Your task to perform on an android device: add a contact in the contacts app Image 0: 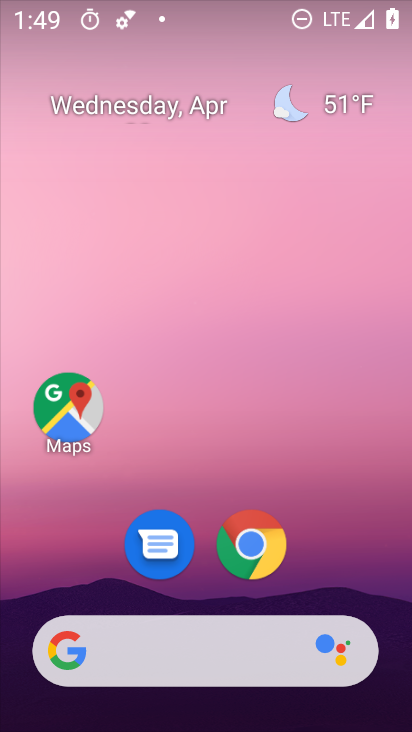
Step 0: drag from (318, 577) to (326, 132)
Your task to perform on an android device: add a contact in the contacts app Image 1: 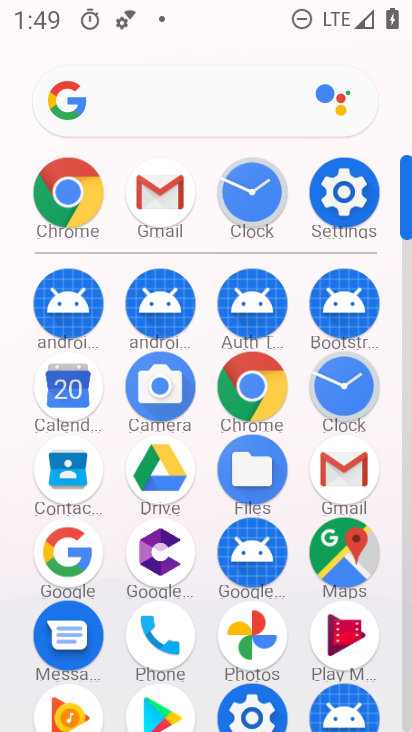
Step 1: click (81, 470)
Your task to perform on an android device: add a contact in the contacts app Image 2: 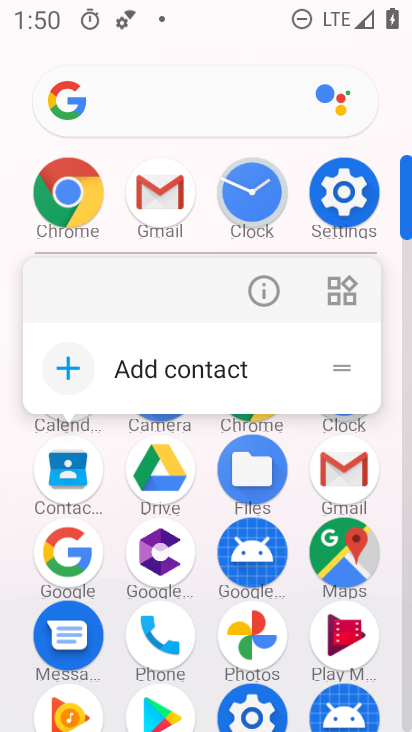
Step 2: click (65, 484)
Your task to perform on an android device: add a contact in the contacts app Image 3: 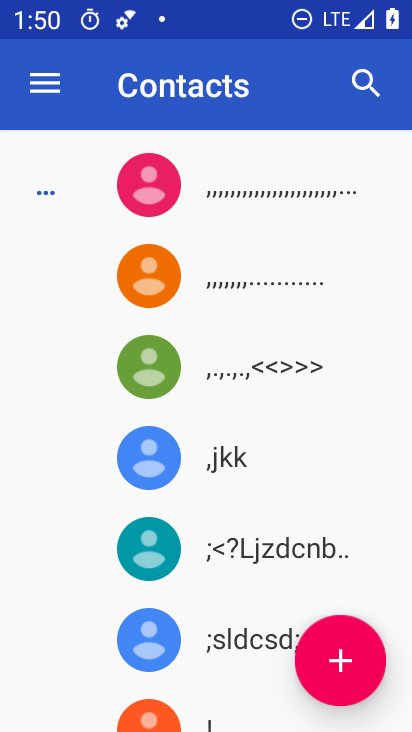
Step 3: click (341, 684)
Your task to perform on an android device: add a contact in the contacts app Image 4: 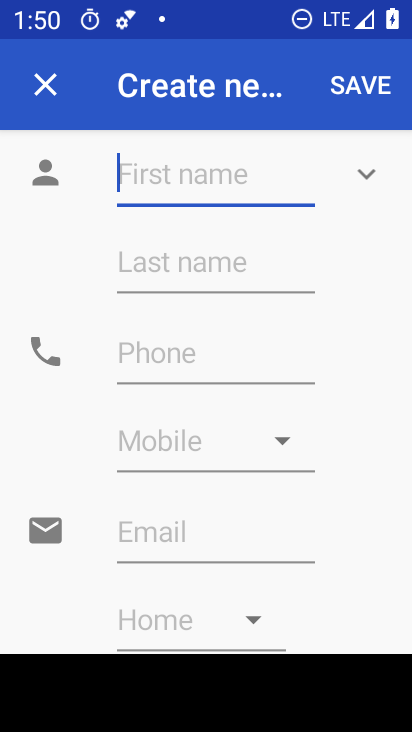
Step 4: type "maan"
Your task to perform on an android device: add a contact in the contacts app Image 5: 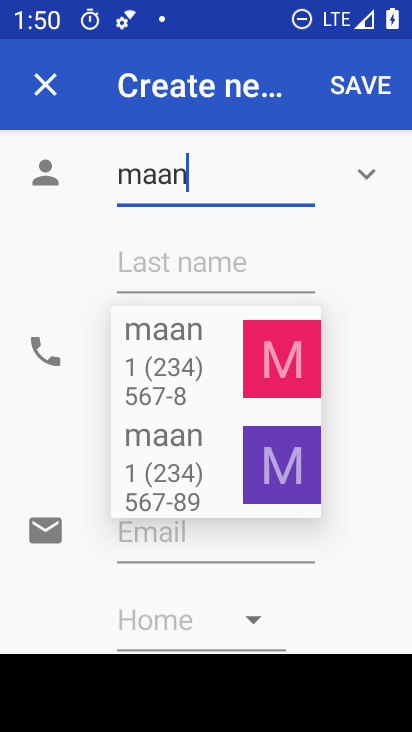
Step 5: click (356, 353)
Your task to perform on an android device: add a contact in the contacts app Image 6: 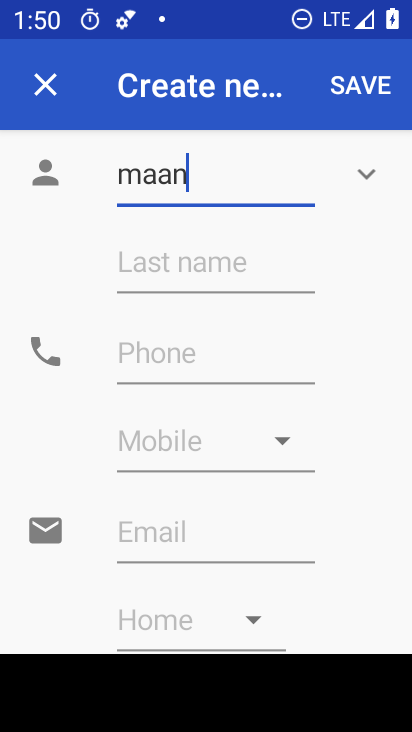
Step 6: click (229, 357)
Your task to perform on an android device: add a contact in the contacts app Image 7: 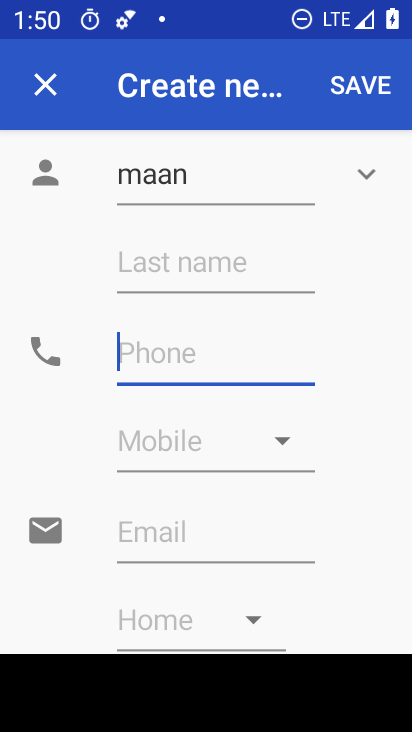
Step 7: type "1234567890"
Your task to perform on an android device: add a contact in the contacts app Image 8: 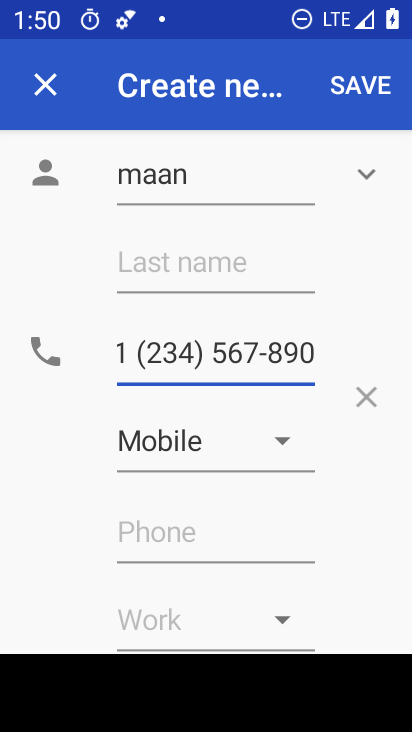
Step 8: click (384, 80)
Your task to perform on an android device: add a contact in the contacts app Image 9: 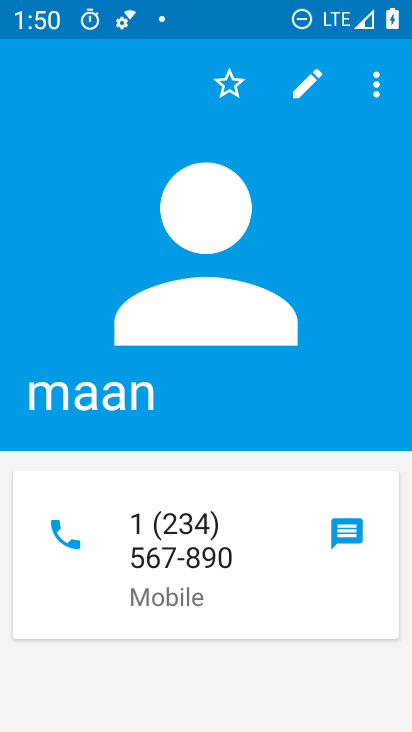
Step 9: task complete